Your task to perform on an android device: open chrome and create a bookmark for the current page Image 0: 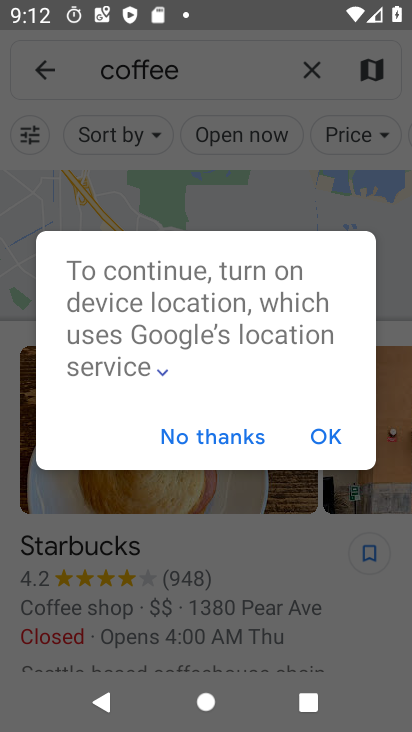
Step 0: press home button
Your task to perform on an android device: open chrome and create a bookmark for the current page Image 1: 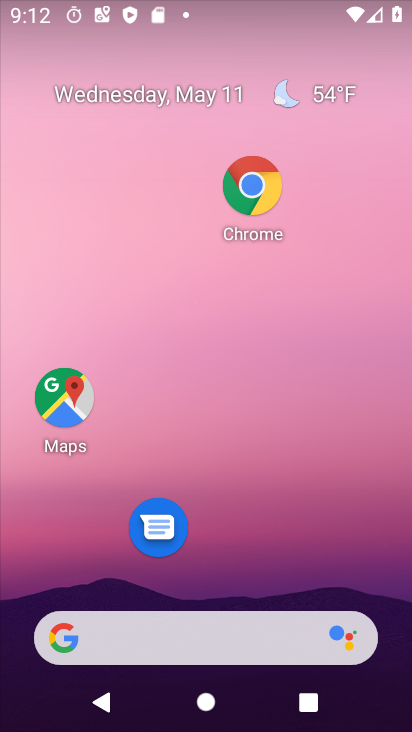
Step 1: click (252, 185)
Your task to perform on an android device: open chrome and create a bookmark for the current page Image 2: 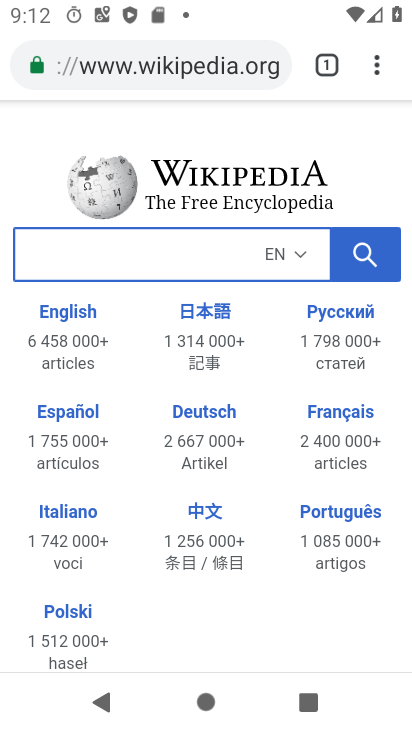
Step 2: click (370, 65)
Your task to perform on an android device: open chrome and create a bookmark for the current page Image 3: 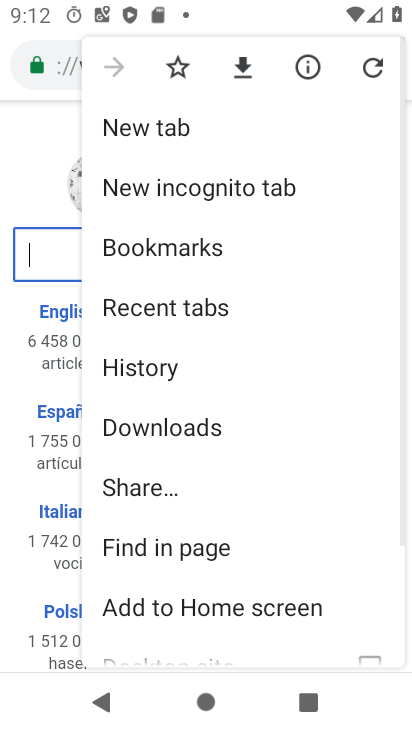
Step 3: click (180, 63)
Your task to perform on an android device: open chrome and create a bookmark for the current page Image 4: 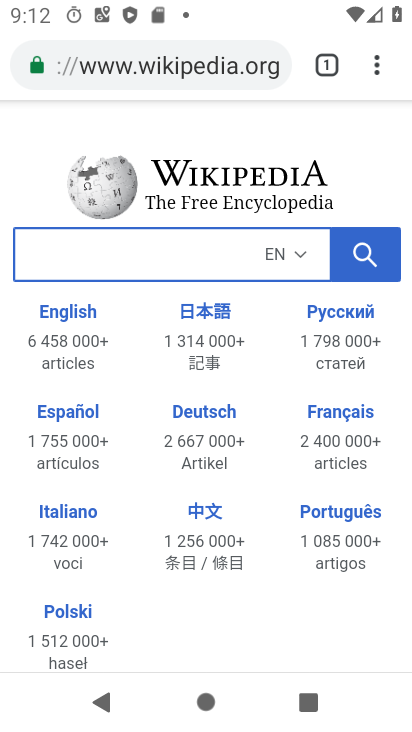
Step 4: task complete